Your task to perform on an android device: set default search engine in the chrome app Image 0: 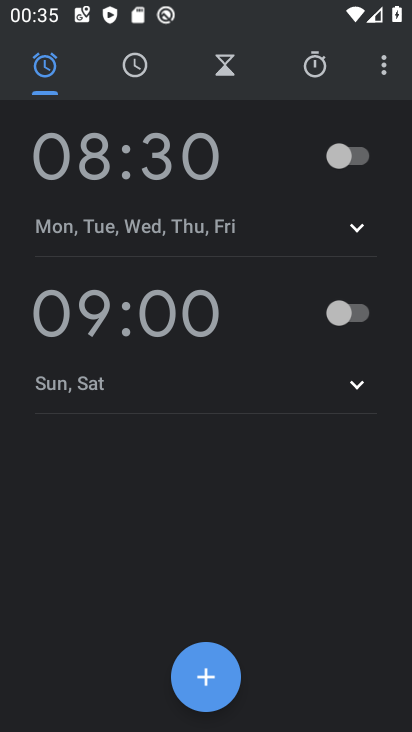
Step 0: press home button
Your task to perform on an android device: set default search engine in the chrome app Image 1: 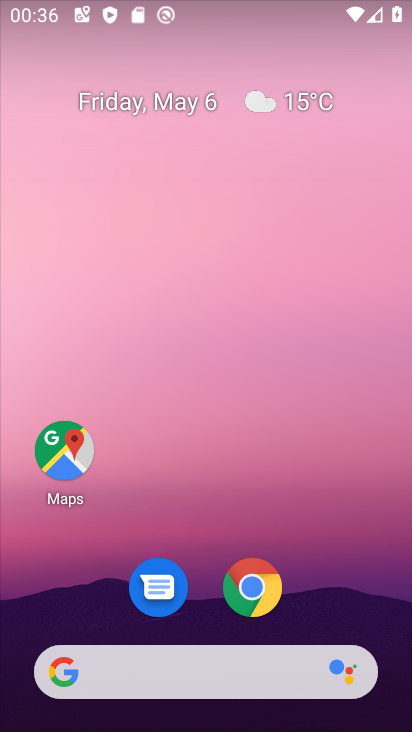
Step 1: click (251, 592)
Your task to perform on an android device: set default search engine in the chrome app Image 2: 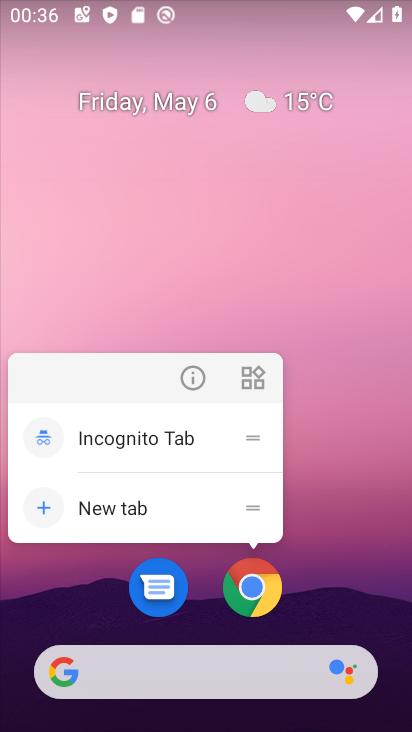
Step 2: click (251, 592)
Your task to perform on an android device: set default search engine in the chrome app Image 3: 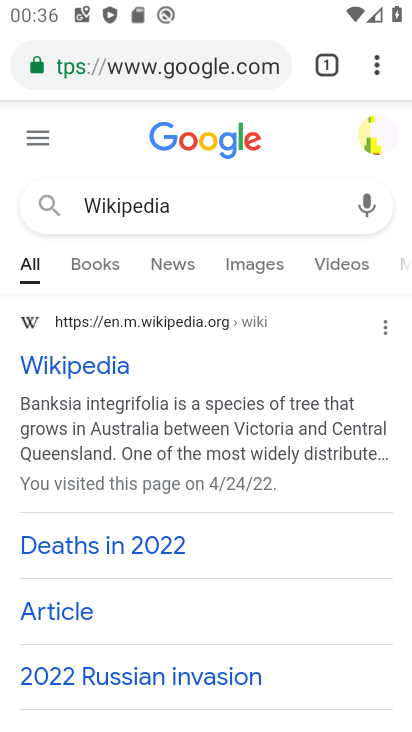
Step 3: click (376, 58)
Your task to perform on an android device: set default search engine in the chrome app Image 4: 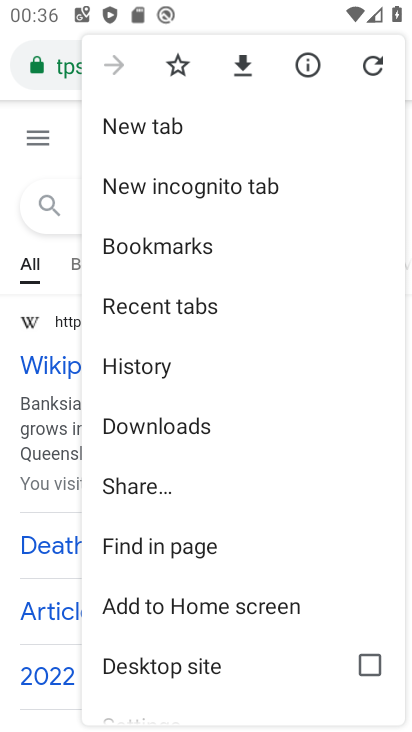
Step 4: drag from (273, 633) to (262, 391)
Your task to perform on an android device: set default search engine in the chrome app Image 5: 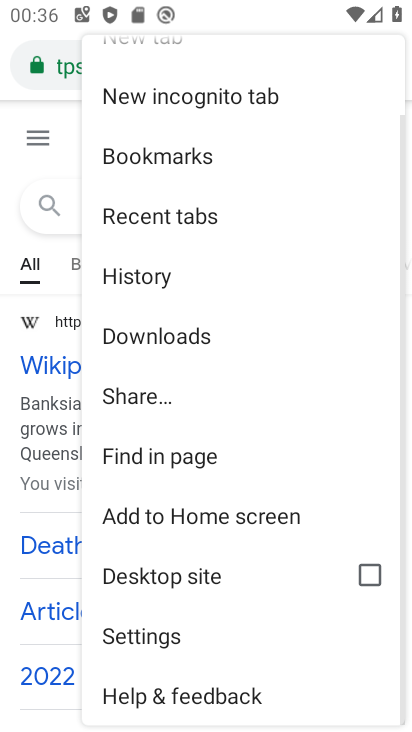
Step 5: click (111, 634)
Your task to perform on an android device: set default search engine in the chrome app Image 6: 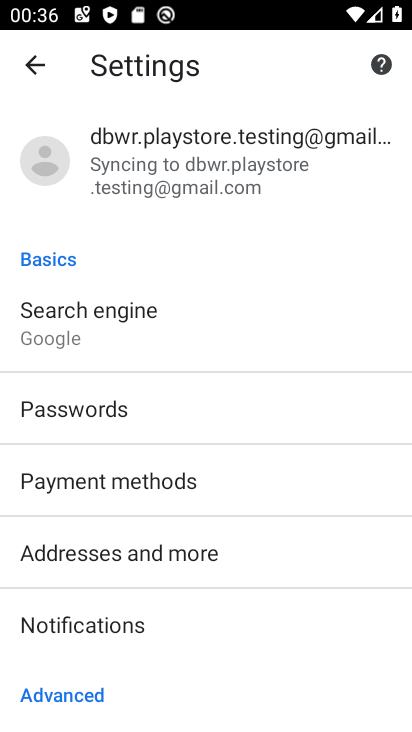
Step 6: drag from (286, 666) to (239, 394)
Your task to perform on an android device: set default search engine in the chrome app Image 7: 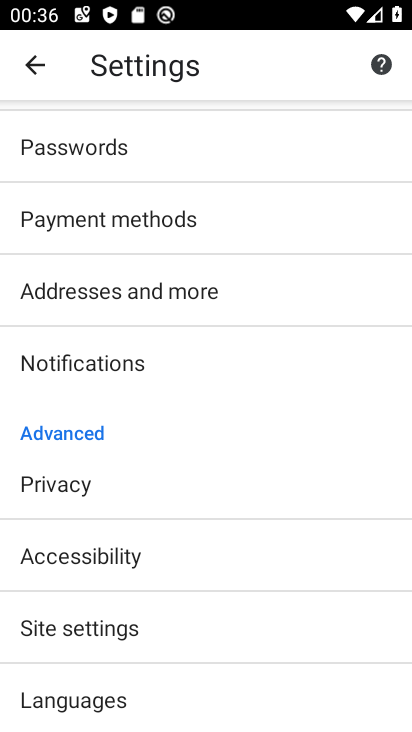
Step 7: drag from (255, 234) to (315, 609)
Your task to perform on an android device: set default search engine in the chrome app Image 8: 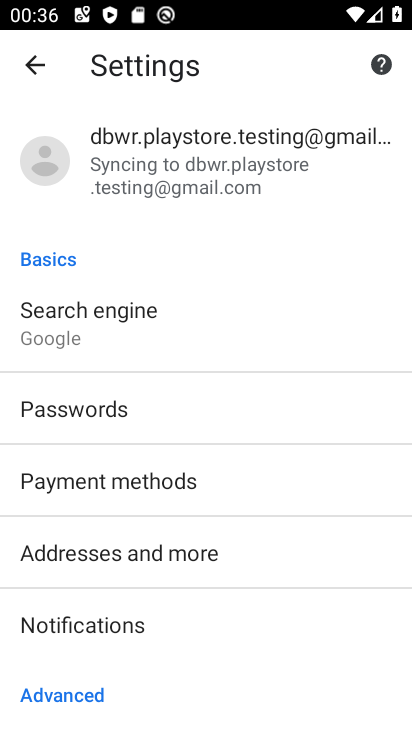
Step 8: click (76, 322)
Your task to perform on an android device: set default search engine in the chrome app Image 9: 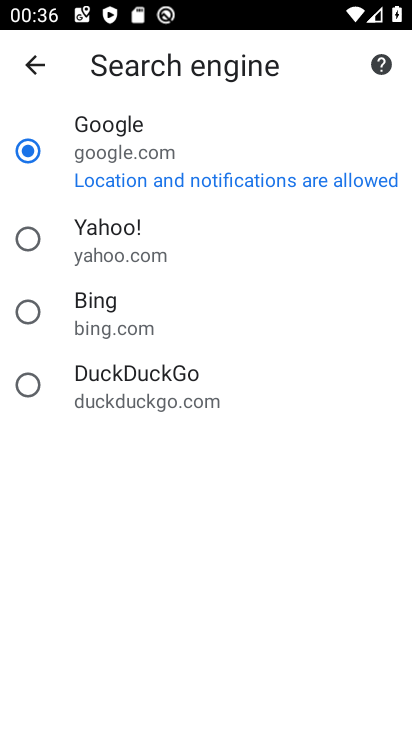
Step 9: task complete